Your task to perform on an android device: open sync settings in chrome Image 0: 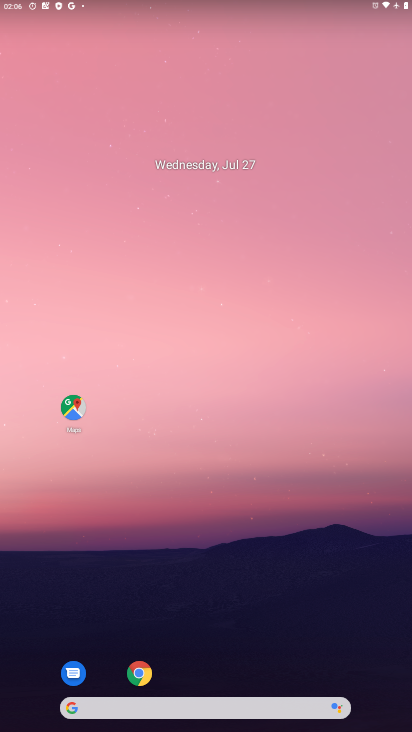
Step 0: click (144, 676)
Your task to perform on an android device: open sync settings in chrome Image 1: 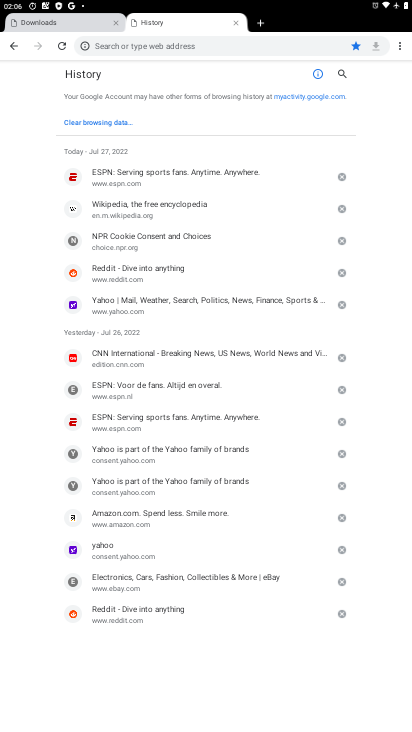
Step 1: drag from (402, 43) to (307, 210)
Your task to perform on an android device: open sync settings in chrome Image 2: 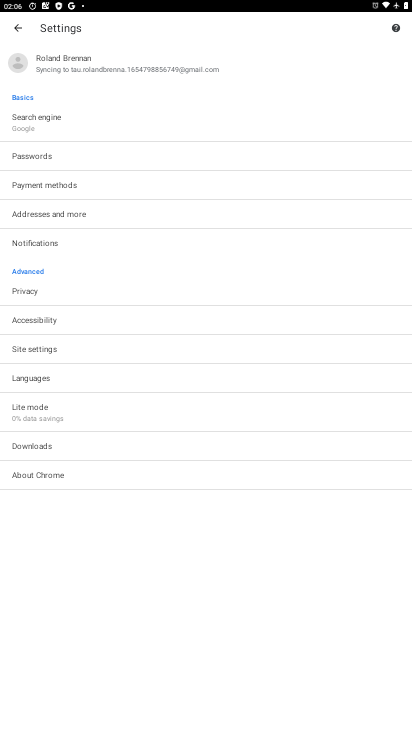
Step 2: click (79, 72)
Your task to perform on an android device: open sync settings in chrome Image 3: 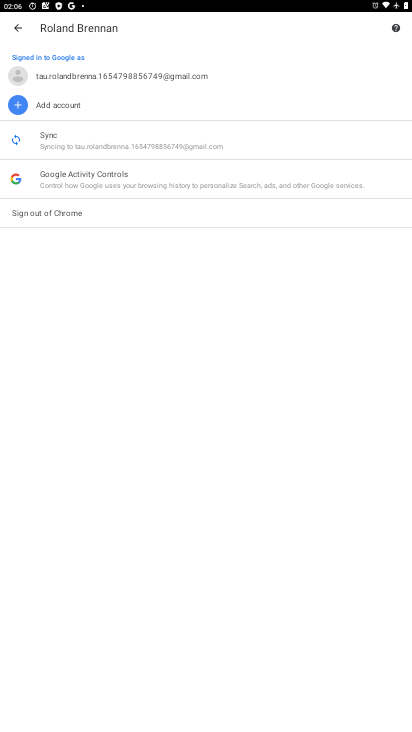
Step 3: click (75, 140)
Your task to perform on an android device: open sync settings in chrome Image 4: 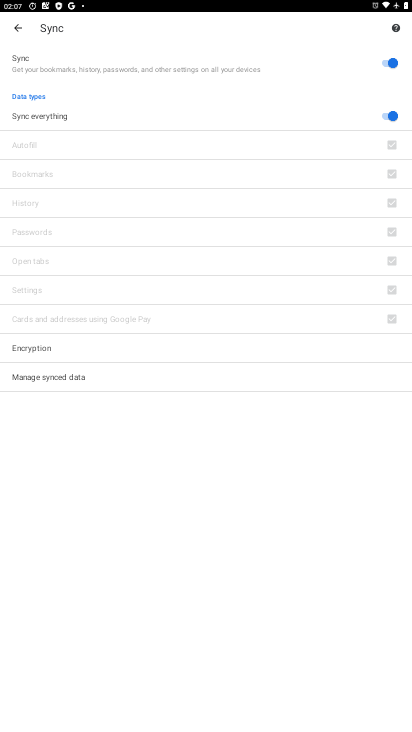
Step 4: task complete